Your task to perform on an android device: set the stopwatch Image 0: 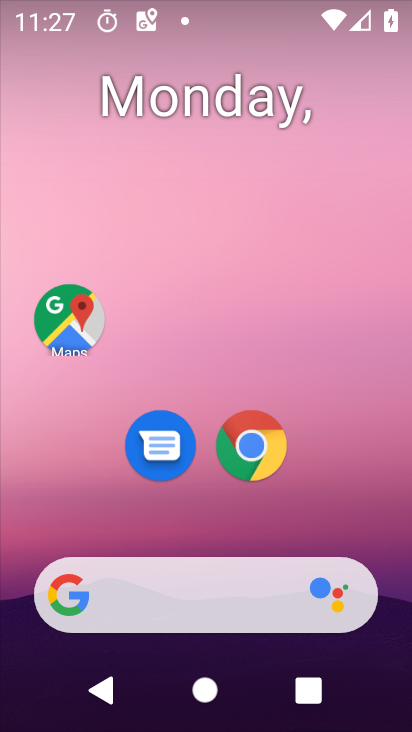
Step 0: drag from (221, 514) to (275, 133)
Your task to perform on an android device: set the stopwatch Image 1: 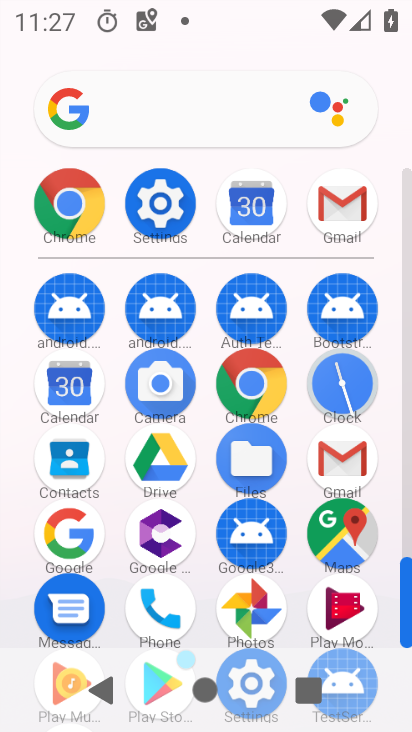
Step 1: click (340, 388)
Your task to perform on an android device: set the stopwatch Image 2: 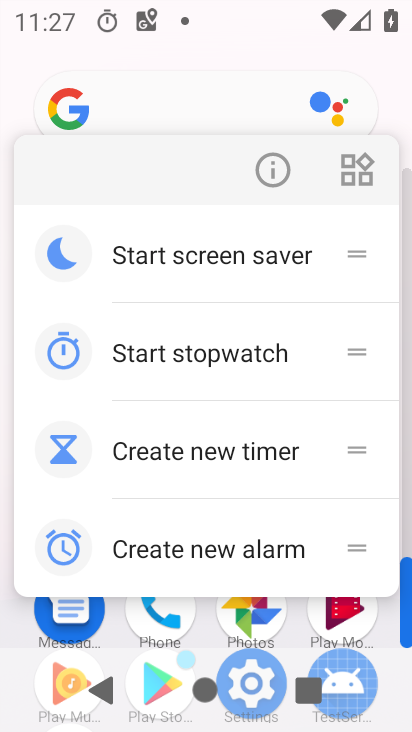
Step 2: click (229, 53)
Your task to perform on an android device: set the stopwatch Image 3: 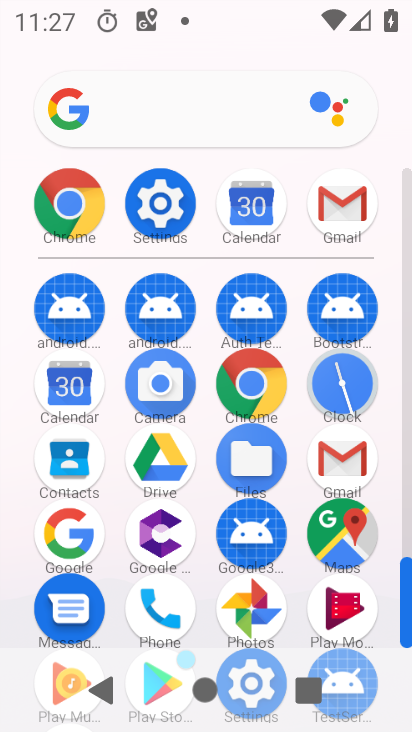
Step 3: click (334, 381)
Your task to perform on an android device: set the stopwatch Image 4: 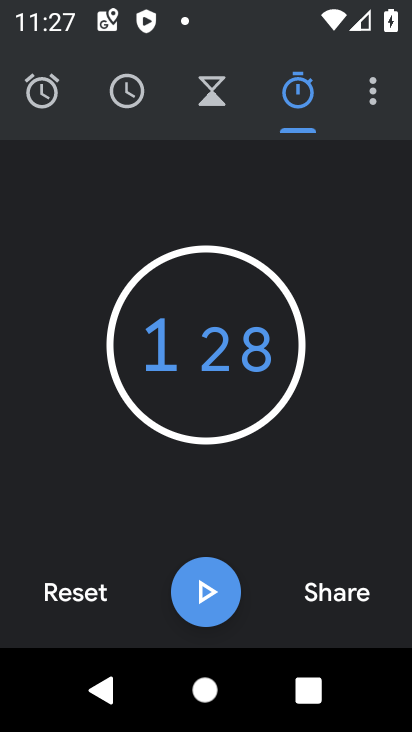
Step 4: task complete